Your task to perform on an android device: turn off improve location accuracy Image 0: 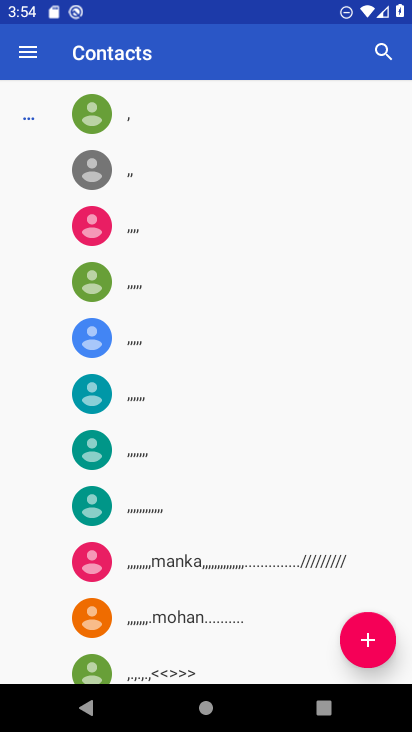
Step 0: press home button
Your task to perform on an android device: turn off improve location accuracy Image 1: 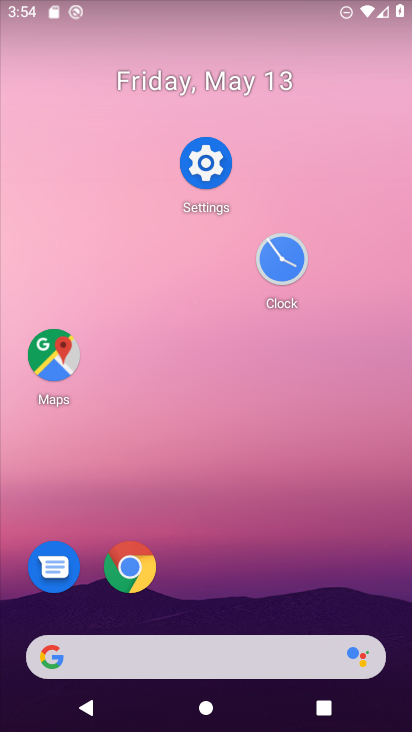
Step 1: click (207, 150)
Your task to perform on an android device: turn off improve location accuracy Image 2: 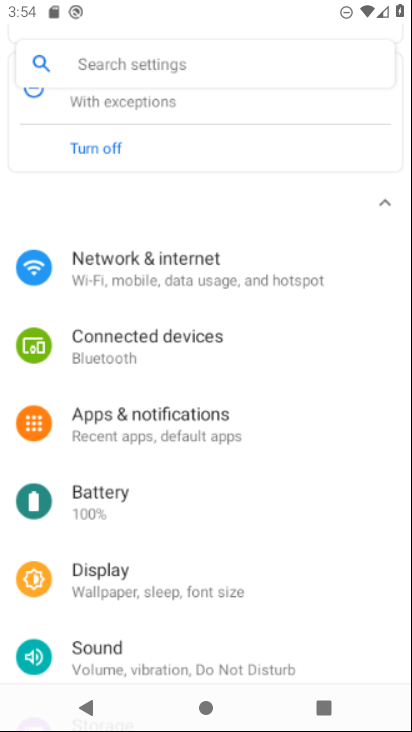
Step 2: drag from (233, 546) to (223, 258)
Your task to perform on an android device: turn off improve location accuracy Image 3: 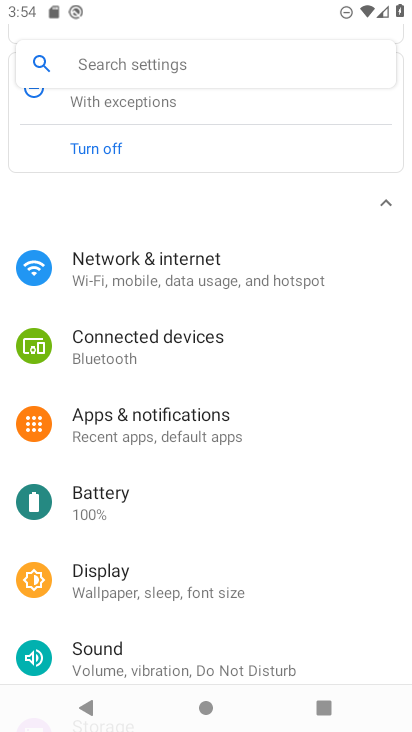
Step 3: drag from (228, 560) to (237, 405)
Your task to perform on an android device: turn off improve location accuracy Image 4: 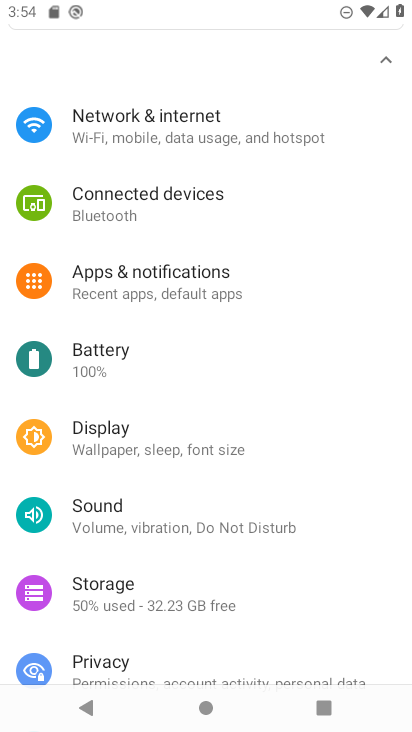
Step 4: drag from (219, 630) to (229, 406)
Your task to perform on an android device: turn off improve location accuracy Image 5: 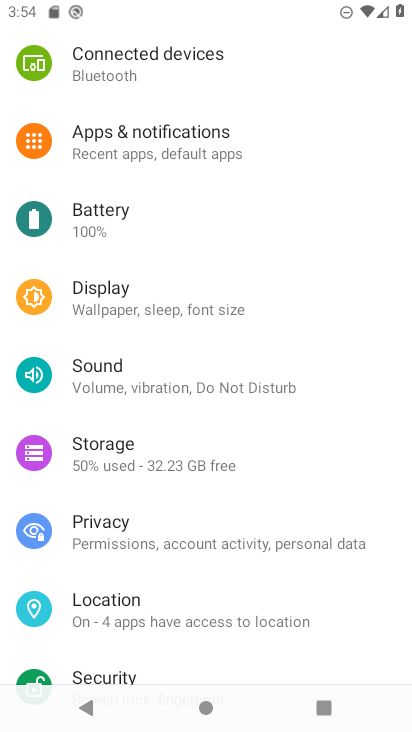
Step 5: click (209, 623)
Your task to perform on an android device: turn off improve location accuracy Image 6: 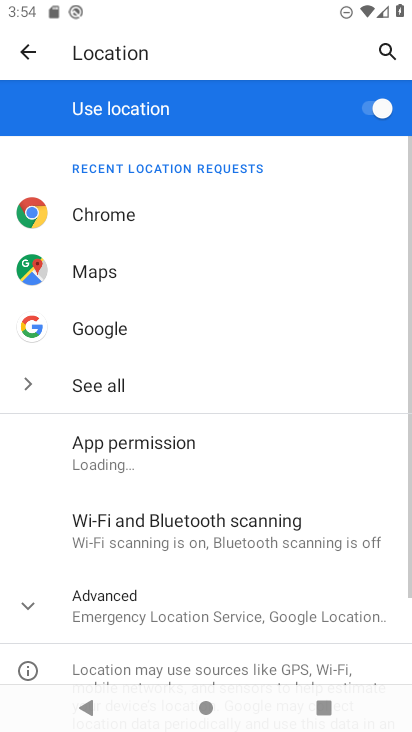
Step 6: drag from (209, 623) to (200, 329)
Your task to perform on an android device: turn off improve location accuracy Image 7: 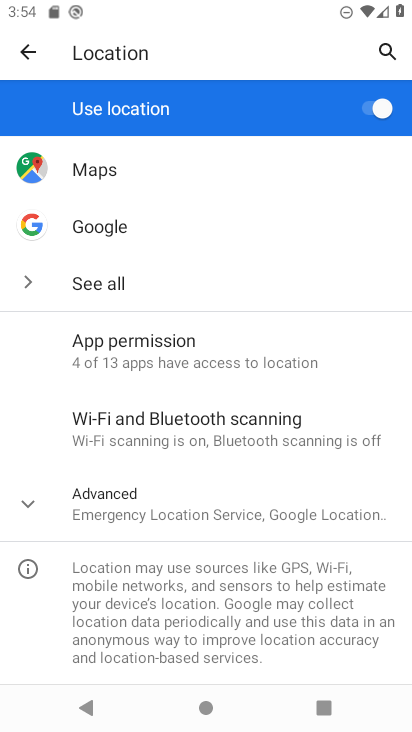
Step 7: click (163, 489)
Your task to perform on an android device: turn off improve location accuracy Image 8: 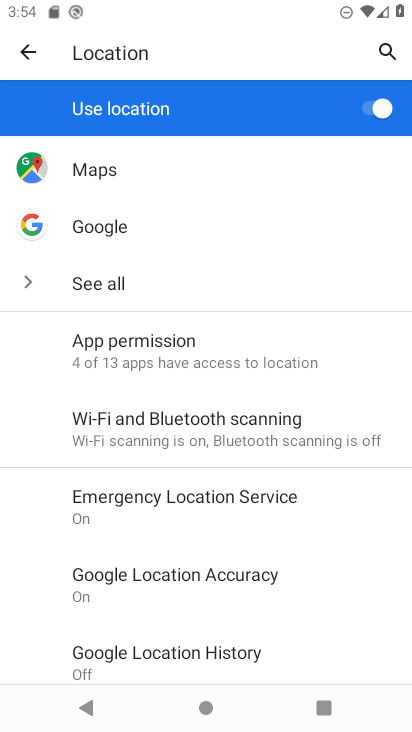
Step 8: click (160, 603)
Your task to perform on an android device: turn off improve location accuracy Image 9: 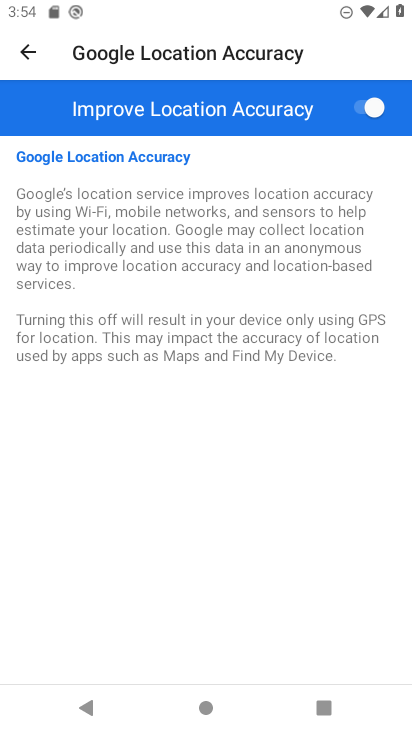
Step 9: click (335, 91)
Your task to perform on an android device: turn off improve location accuracy Image 10: 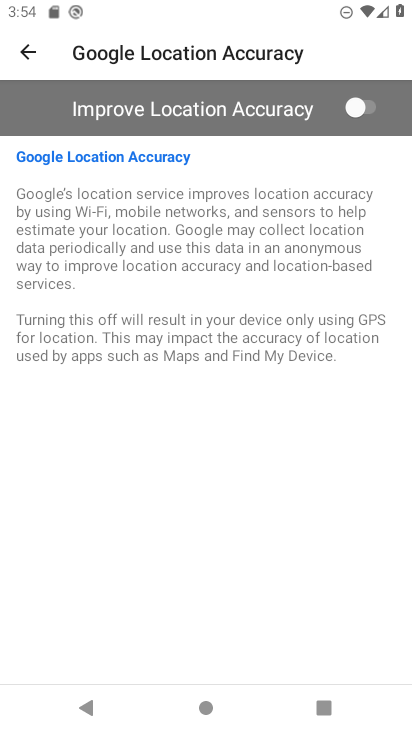
Step 10: task complete